Your task to perform on an android device: toggle sleep mode Image 0: 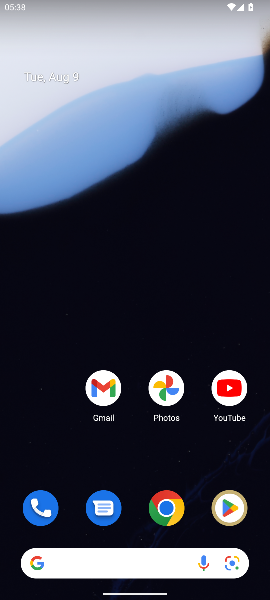
Step 0: drag from (131, 457) to (90, 120)
Your task to perform on an android device: toggle sleep mode Image 1: 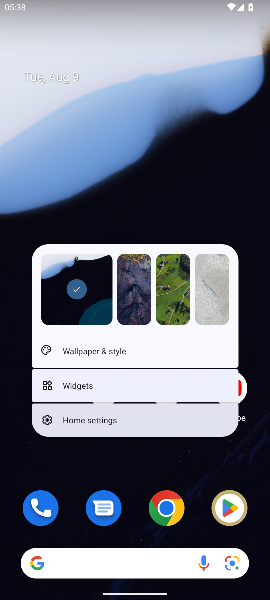
Step 1: click (125, 124)
Your task to perform on an android device: toggle sleep mode Image 2: 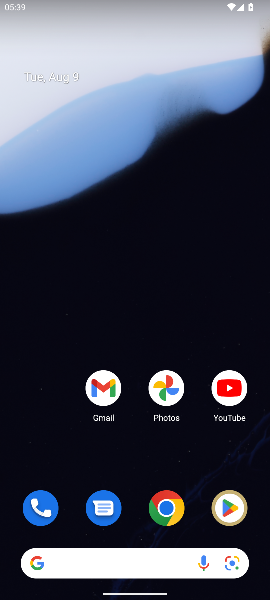
Step 2: drag from (138, 383) to (141, 121)
Your task to perform on an android device: toggle sleep mode Image 3: 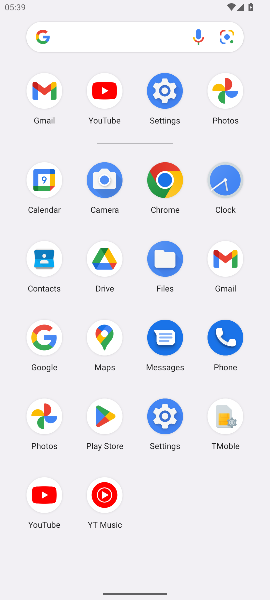
Step 3: click (158, 96)
Your task to perform on an android device: toggle sleep mode Image 4: 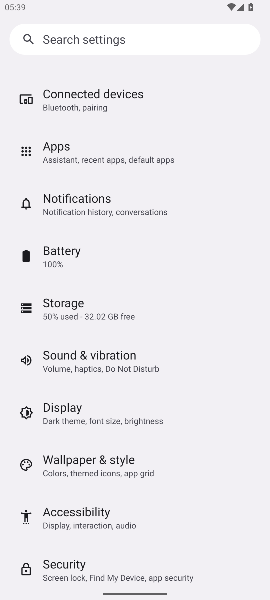
Step 4: click (102, 424)
Your task to perform on an android device: toggle sleep mode Image 5: 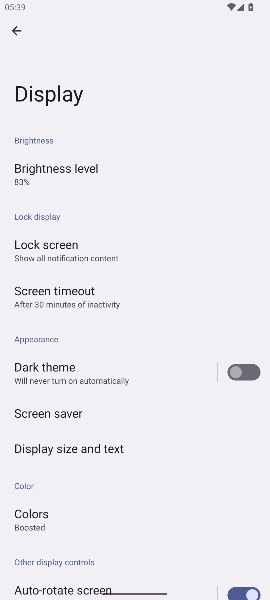
Step 5: task complete